Your task to perform on an android device: Search for pizza restaurants on Maps Image 0: 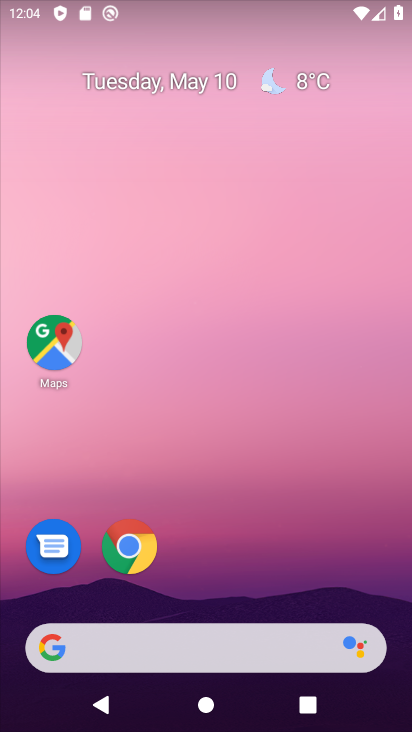
Step 0: click (155, 190)
Your task to perform on an android device: Search for pizza restaurants on Maps Image 1: 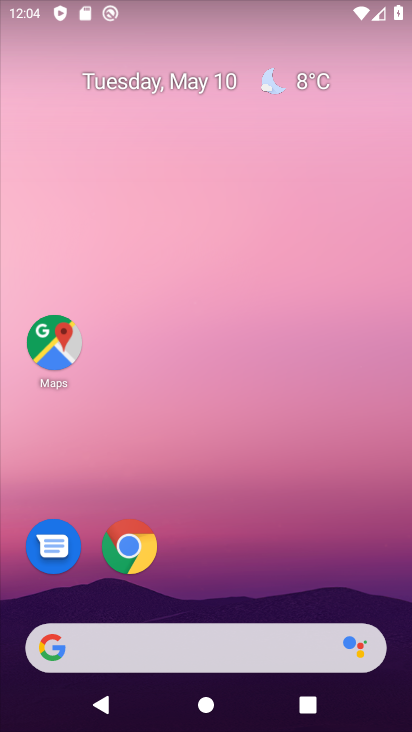
Step 1: drag from (176, 213) to (170, 158)
Your task to perform on an android device: Search for pizza restaurants on Maps Image 2: 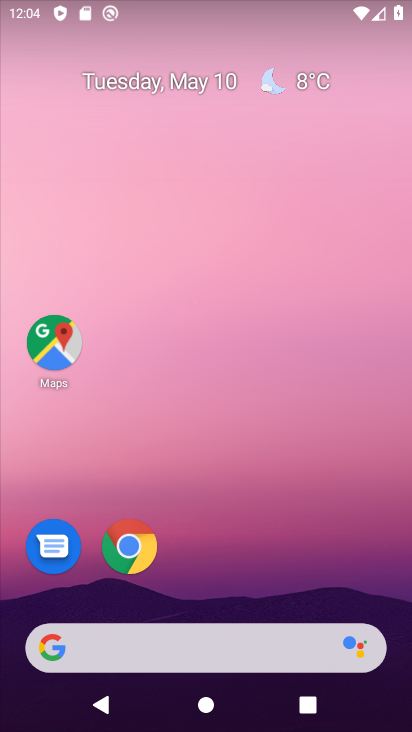
Step 2: drag from (147, 333) to (82, 9)
Your task to perform on an android device: Search for pizza restaurants on Maps Image 3: 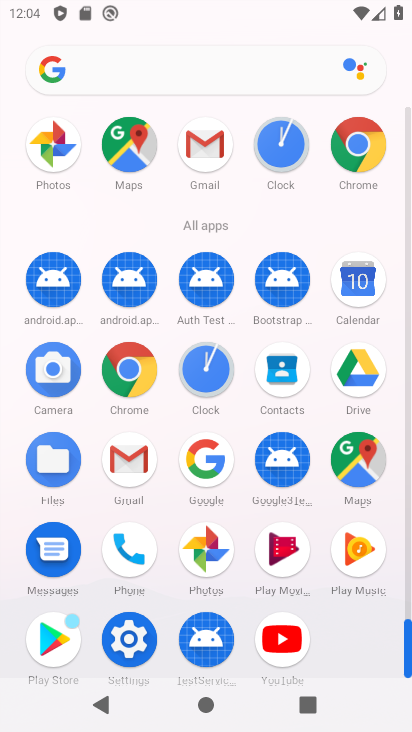
Step 3: drag from (188, 355) to (131, 3)
Your task to perform on an android device: Search for pizza restaurants on Maps Image 4: 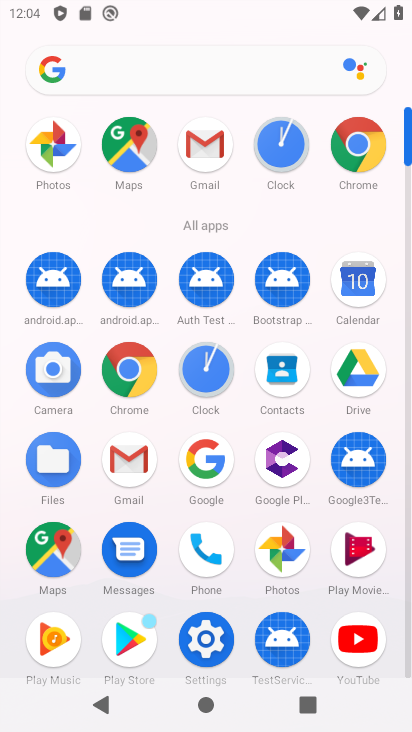
Step 4: drag from (198, 381) to (159, 13)
Your task to perform on an android device: Search for pizza restaurants on Maps Image 5: 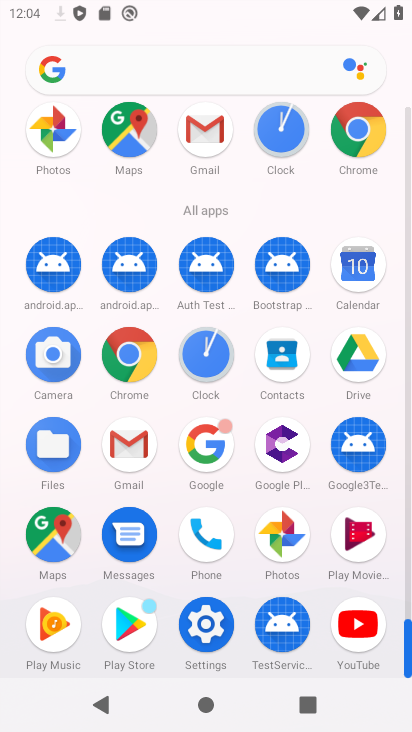
Step 5: drag from (188, 414) to (164, 158)
Your task to perform on an android device: Search for pizza restaurants on Maps Image 6: 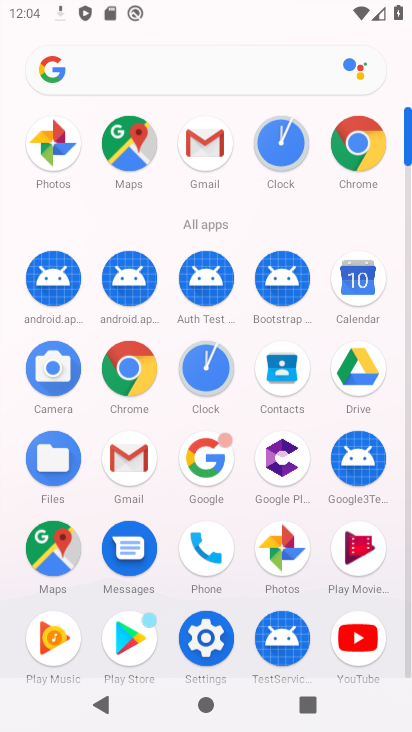
Step 6: drag from (166, 393) to (122, 20)
Your task to perform on an android device: Search for pizza restaurants on Maps Image 7: 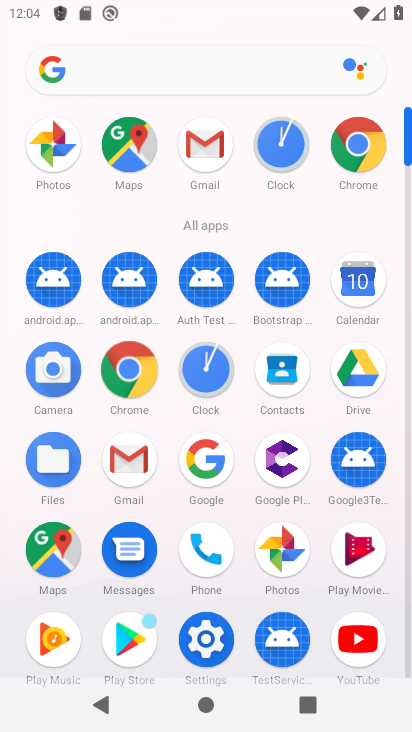
Step 7: drag from (121, 24) to (152, 98)
Your task to perform on an android device: Search for pizza restaurants on Maps Image 8: 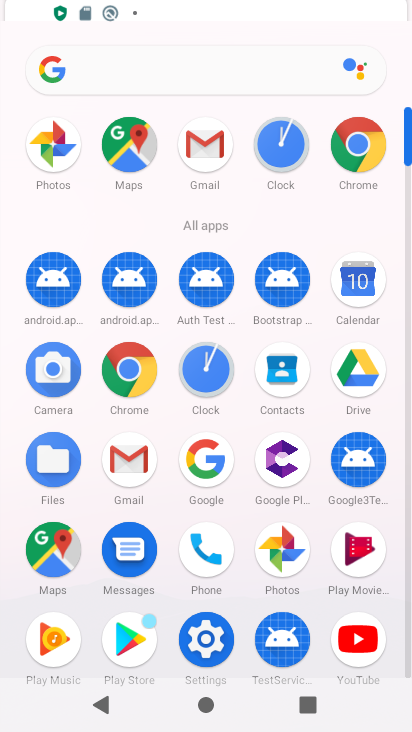
Step 8: click (138, 51)
Your task to perform on an android device: Search for pizza restaurants on Maps Image 9: 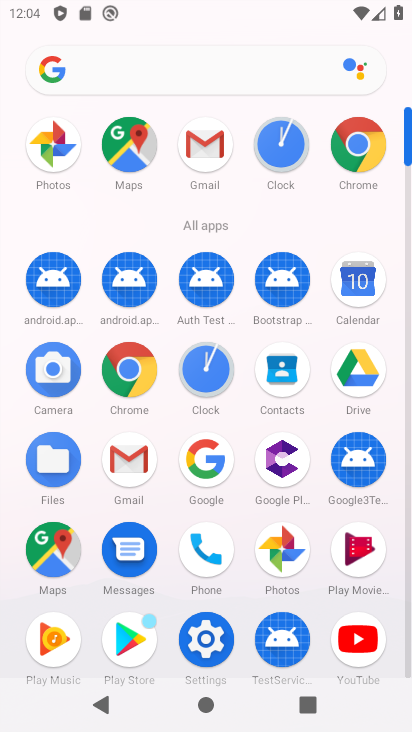
Step 9: click (49, 549)
Your task to perform on an android device: Search for pizza restaurants on Maps Image 10: 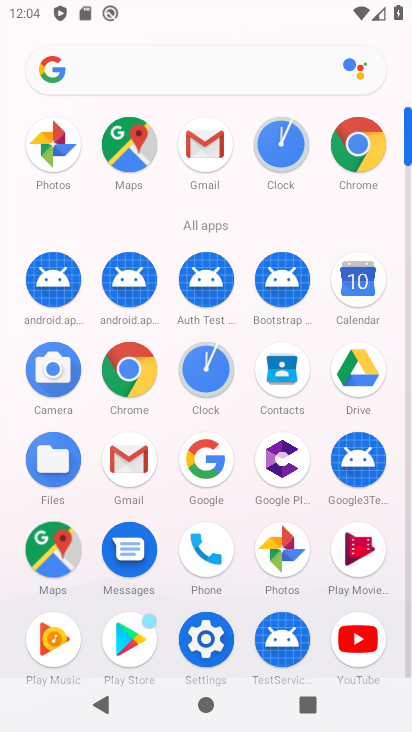
Step 10: click (58, 555)
Your task to perform on an android device: Search for pizza restaurants on Maps Image 11: 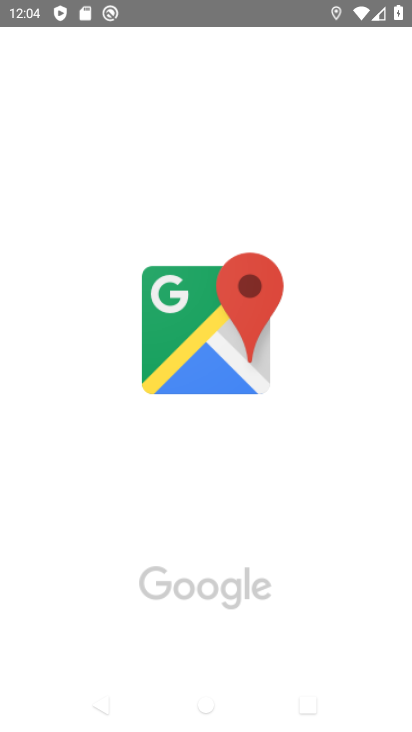
Step 11: click (57, 534)
Your task to perform on an android device: Search for pizza restaurants on Maps Image 12: 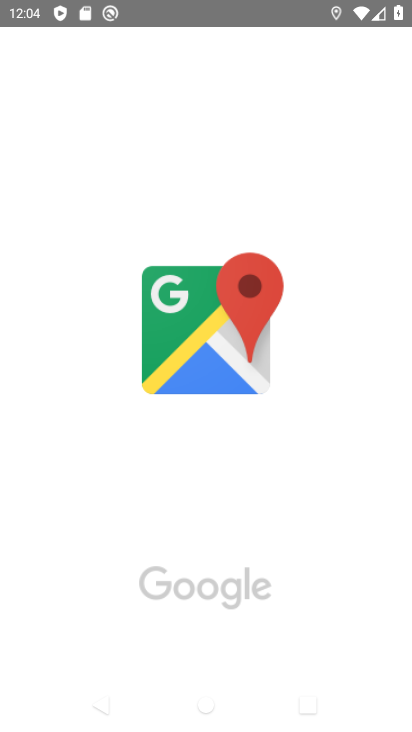
Step 12: click (62, 535)
Your task to perform on an android device: Search for pizza restaurants on Maps Image 13: 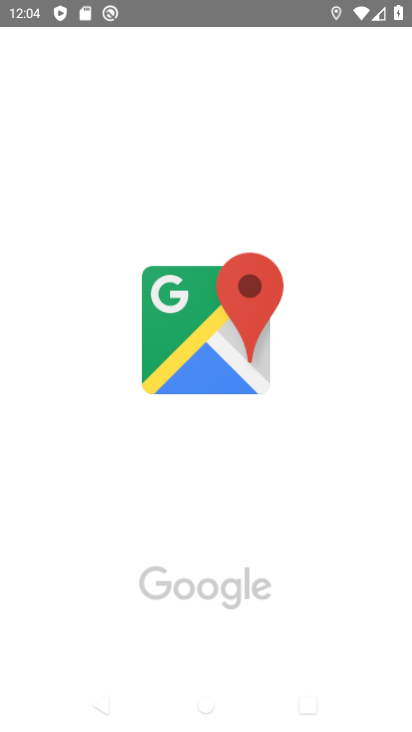
Step 13: click (63, 534)
Your task to perform on an android device: Search for pizza restaurants on Maps Image 14: 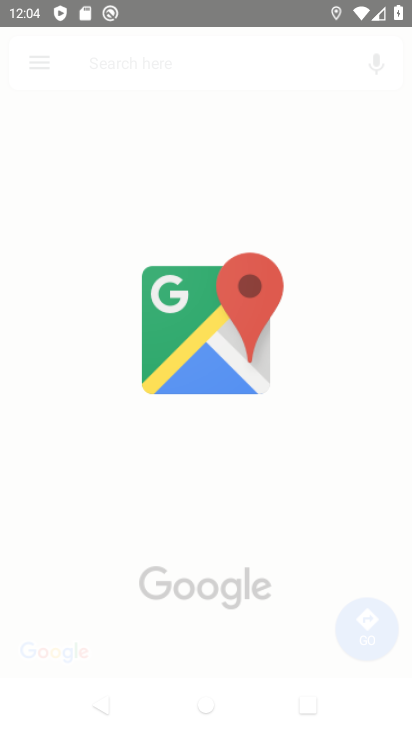
Step 14: drag from (249, 304) to (249, 387)
Your task to perform on an android device: Search for pizza restaurants on Maps Image 15: 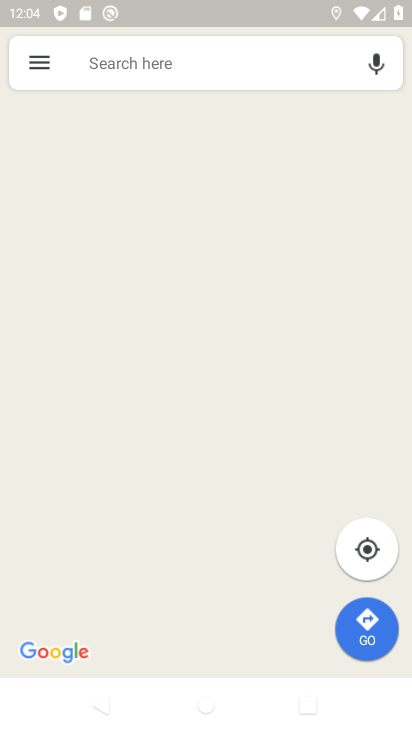
Step 15: click (235, 355)
Your task to perform on an android device: Search for pizza restaurants on Maps Image 16: 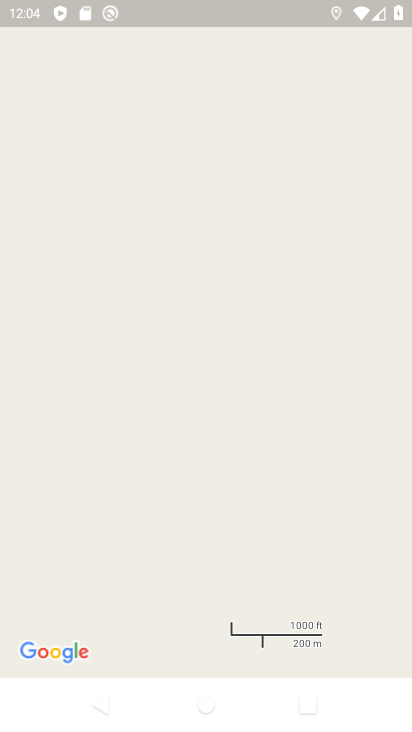
Step 16: click (217, 301)
Your task to perform on an android device: Search for pizza restaurants on Maps Image 17: 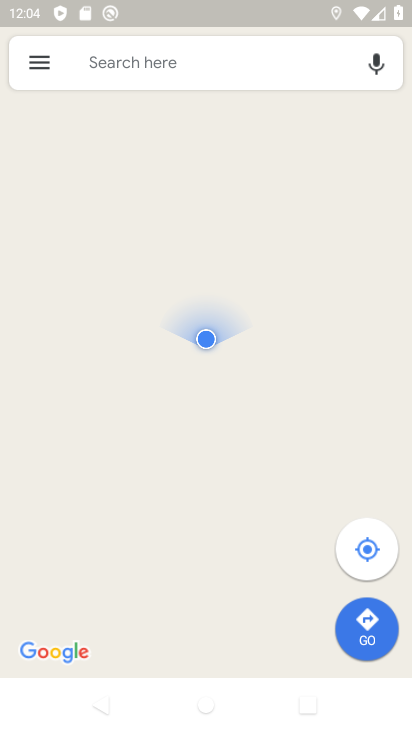
Step 17: click (88, 57)
Your task to perform on an android device: Search for pizza restaurants on Maps Image 18: 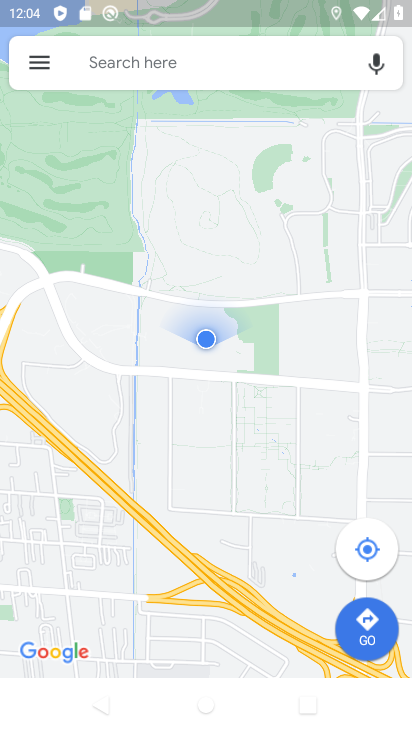
Step 18: click (88, 57)
Your task to perform on an android device: Search for pizza restaurants on Maps Image 19: 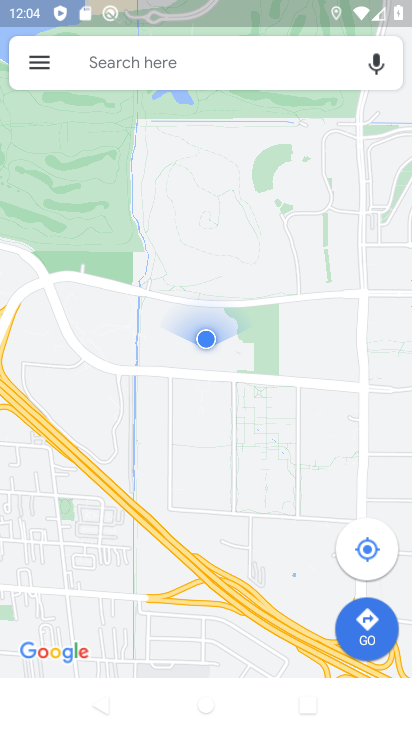
Step 19: click (88, 57)
Your task to perform on an android device: Search for pizza restaurants on Maps Image 20: 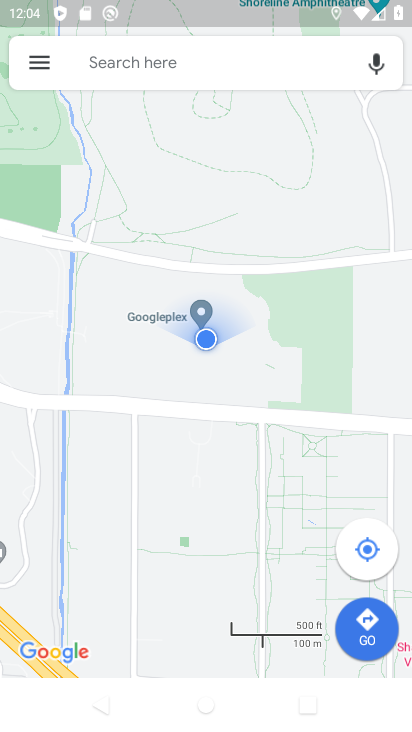
Step 20: click (96, 58)
Your task to perform on an android device: Search for pizza restaurants on Maps Image 21: 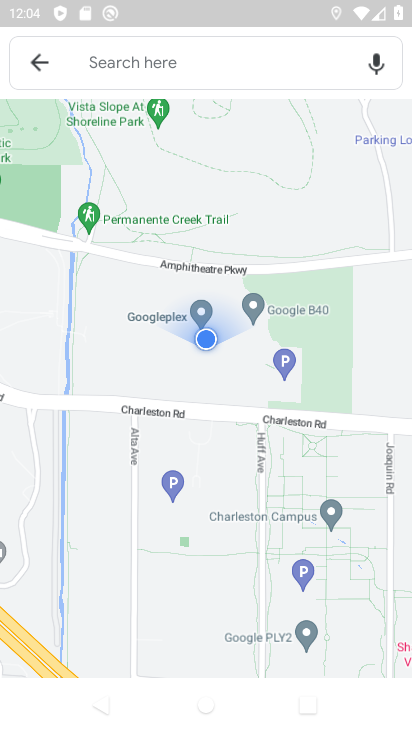
Step 21: click (97, 63)
Your task to perform on an android device: Search for pizza restaurants on Maps Image 22: 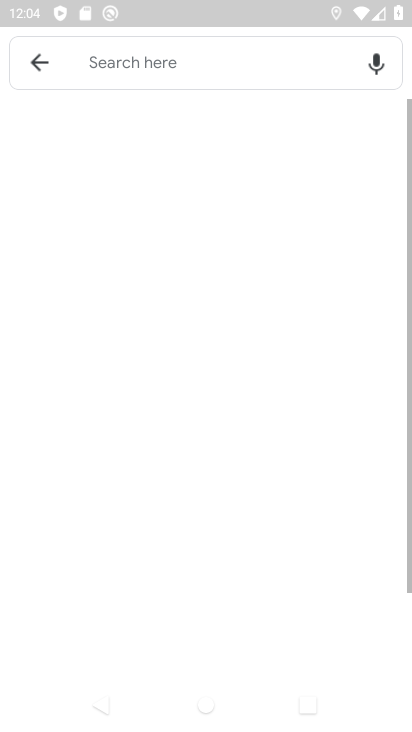
Step 22: click (97, 63)
Your task to perform on an android device: Search for pizza restaurants on Maps Image 23: 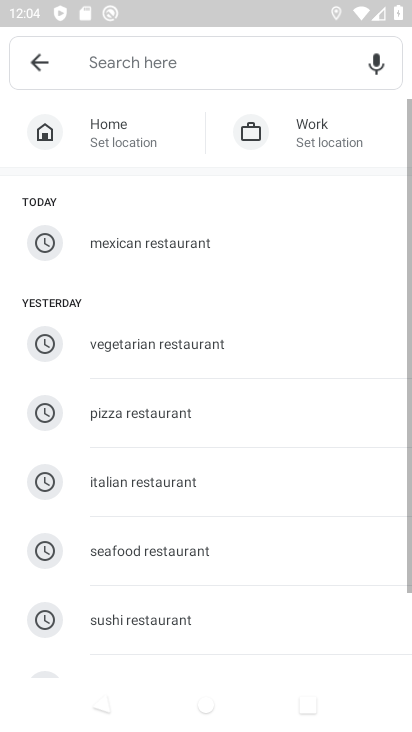
Step 23: click (97, 62)
Your task to perform on an android device: Search for pizza restaurants on Maps Image 24: 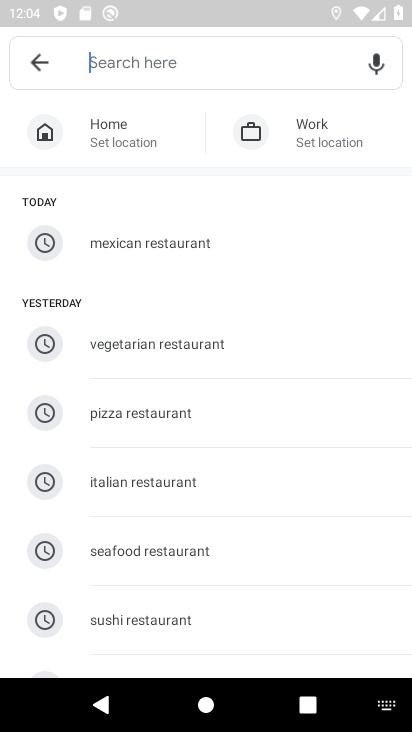
Step 24: click (156, 395)
Your task to perform on an android device: Search for pizza restaurants on Maps Image 25: 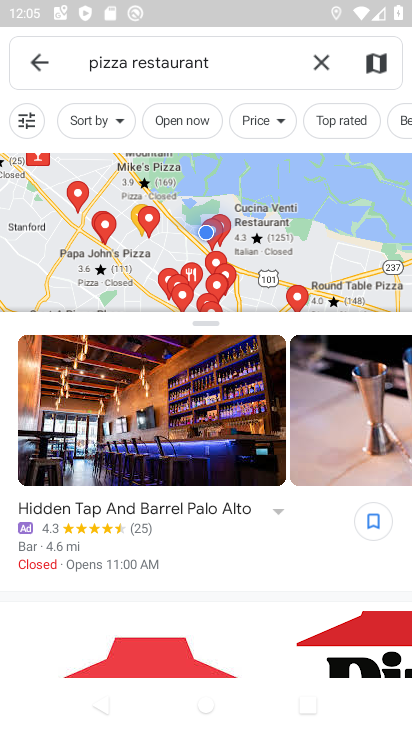
Step 25: task complete